Your task to perform on an android device: change text size in settings app Image 0: 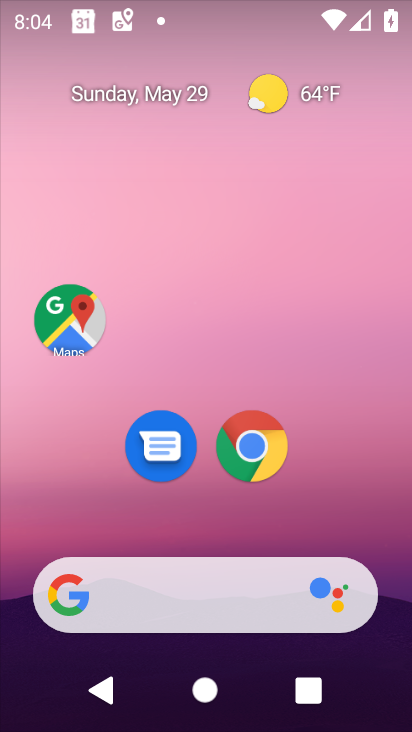
Step 0: drag from (264, 258) to (292, 25)
Your task to perform on an android device: change text size in settings app Image 1: 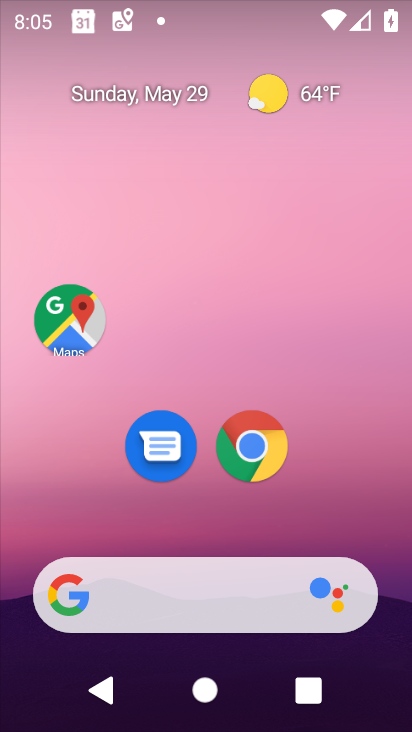
Step 1: drag from (220, 485) to (278, 105)
Your task to perform on an android device: change text size in settings app Image 2: 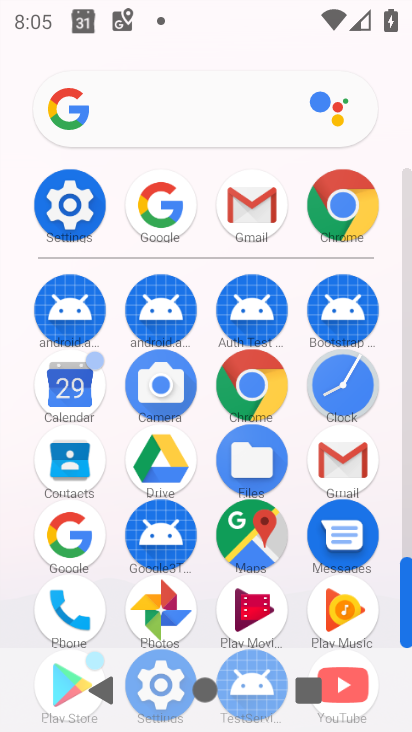
Step 2: click (38, 183)
Your task to perform on an android device: change text size in settings app Image 3: 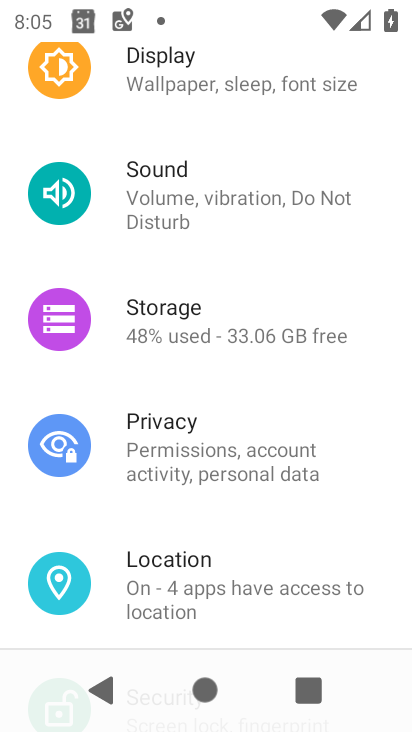
Step 3: click (218, 87)
Your task to perform on an android device: change text size in settings app Image 4: 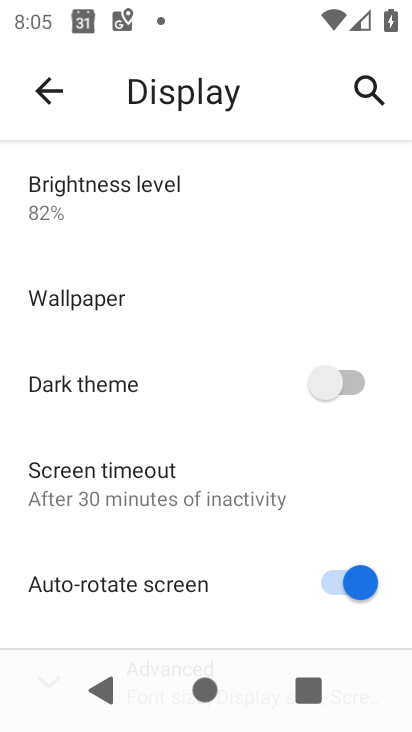
Step 4: drag from (190, 503) to (218, 249)
Your task to perform on an android device: change text size in settings app Image 5: 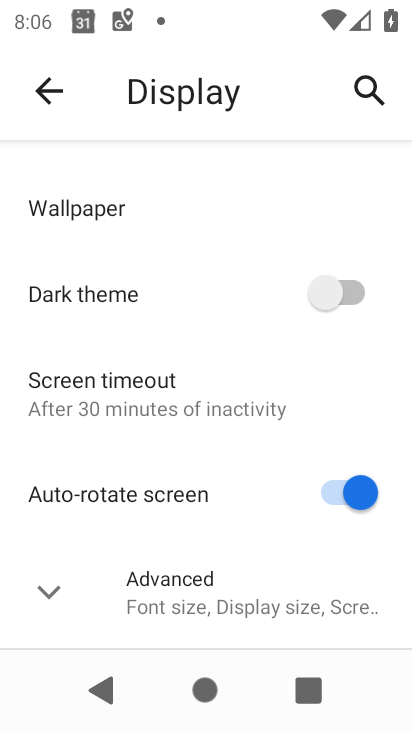
Step 5: click (173, 604)
Your task to perform on an android device: change text size in settings app Image 6: 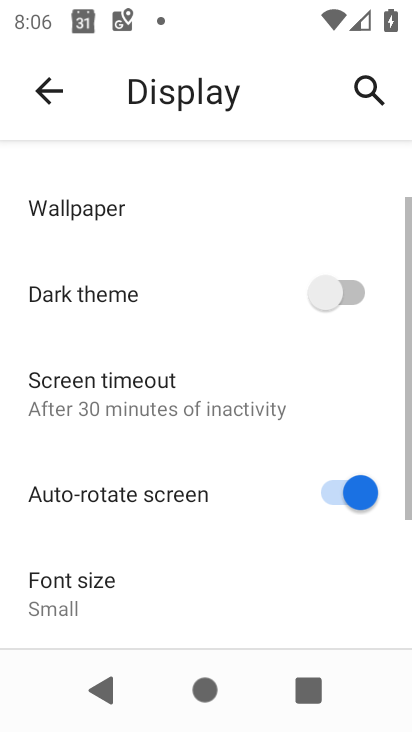
Step 6: drag from (171, 586) to (355, 157)
Your task to perform on an android device: change text size in settings app Image 7: 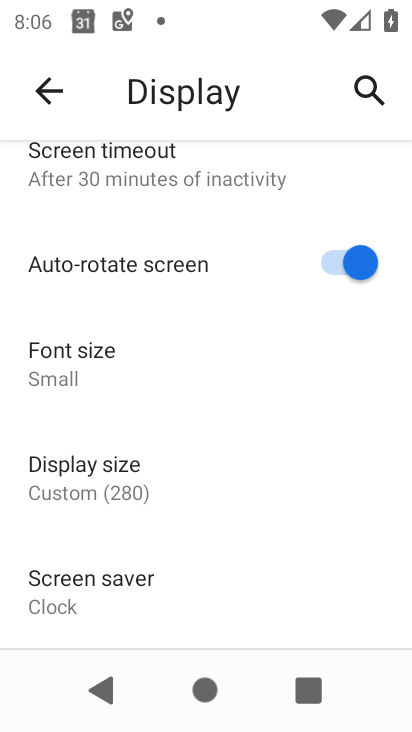
Step 7: click (102, 353)
Your task to perform on an android device: change text size in settings app Image 8: 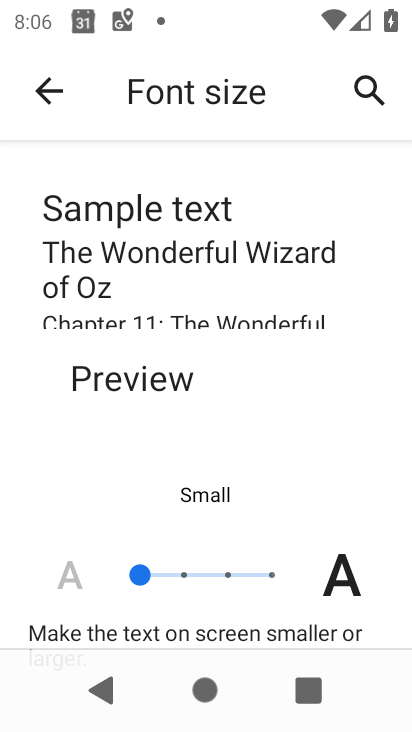
Step 8: drag from (184, 466) to (252, 201)
Your task to perform on an android device: change text size in settings app Image 9: 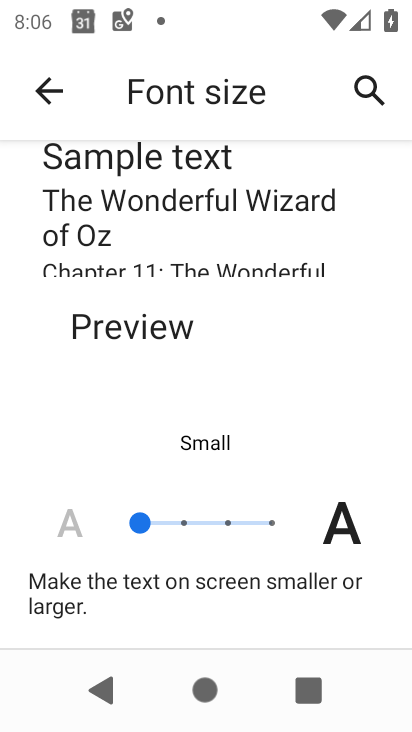
Step 9: drag from (184, 577) to (373, 230)
Your task to perform on an android device: change text size in settings app Image 10: 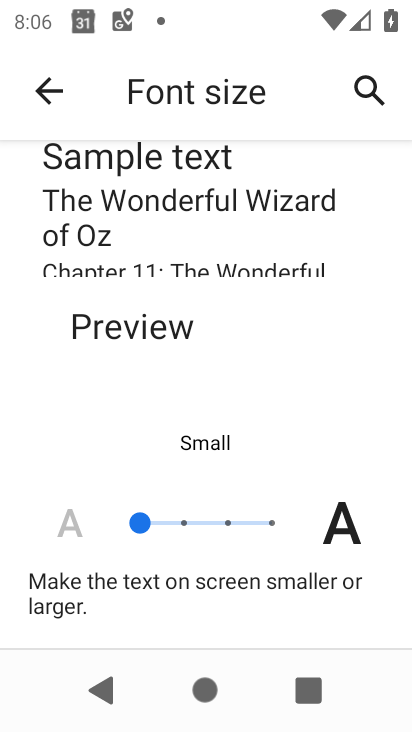
Step 10: click (185, 527)
Your task to perform on an android device: change text size in settings app Image 11: 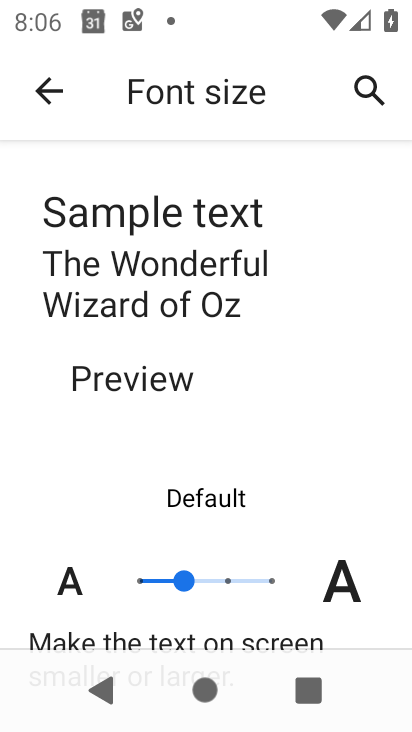
Step 11: task complete